Your task to perform on an android device: change the clock display to analog Image 0: 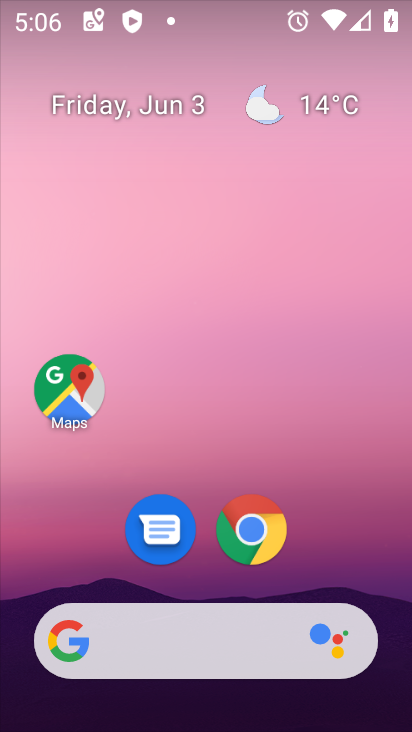
Step 0: drag from (213, 572) to (226, 106)
Your task to perform on an android device: change the clock display to analog Image 1: 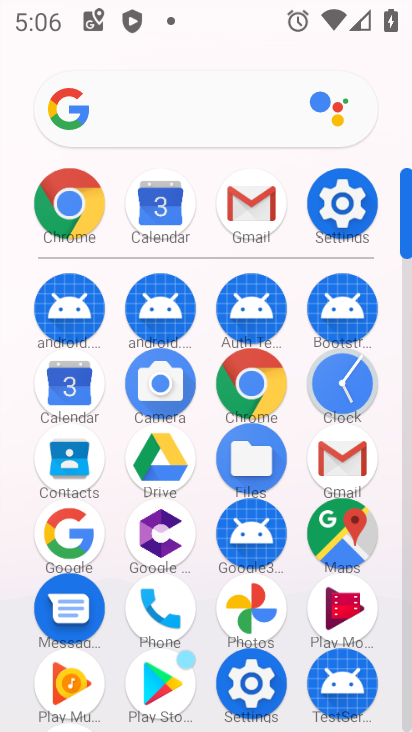
Step 1: click (339, 374)
Your task to perform on an android device: change the clock display to analog Image 2: 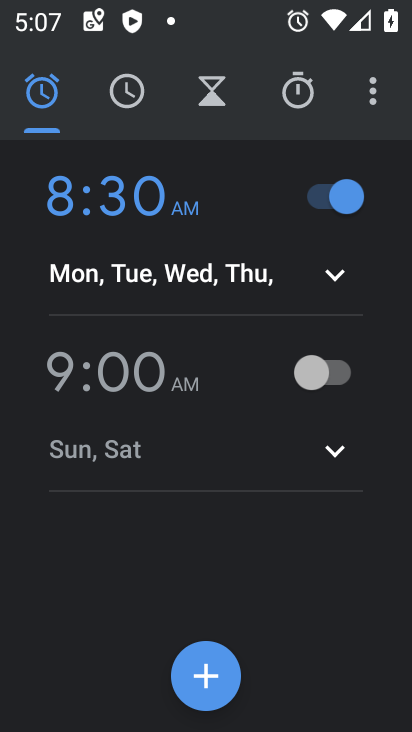
Step 2: click (368, 95)
Your task to perform on an android device: change the clock display to analog Image 3: 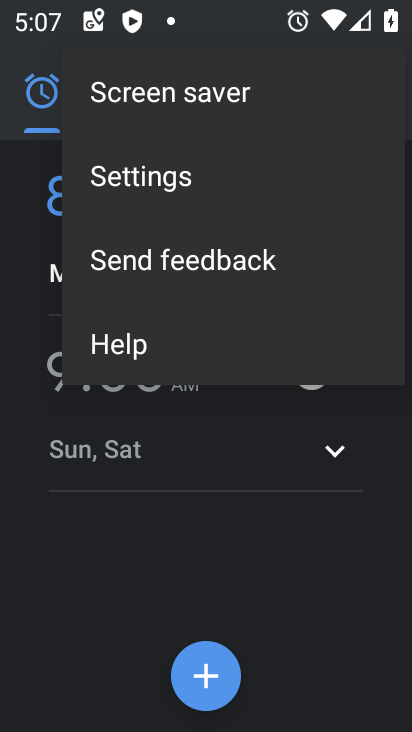
Step 3: click (204, 168)
Your task to perform on an android device: change the clock display to analog Image 4: 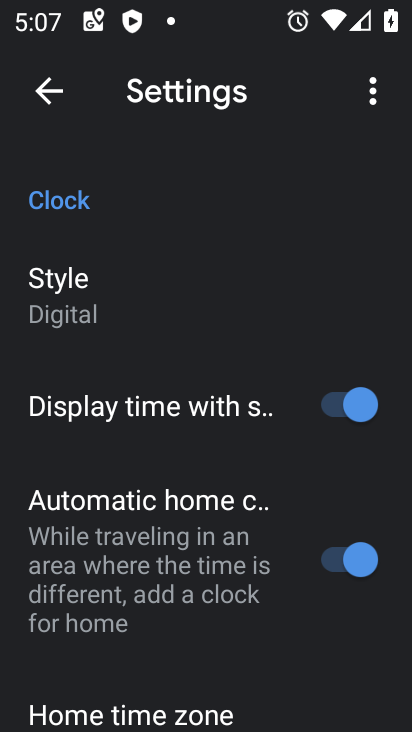
Step 4: click (141, 295)
Your task to perform on an android device: change the clock display to analog Image 5: 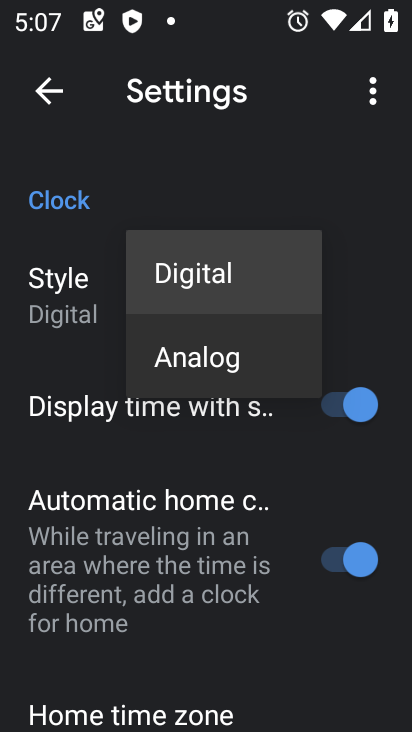
Step 5: click (231, 357)
Your task to perform on an android device: change the clock display to analog Image 6: 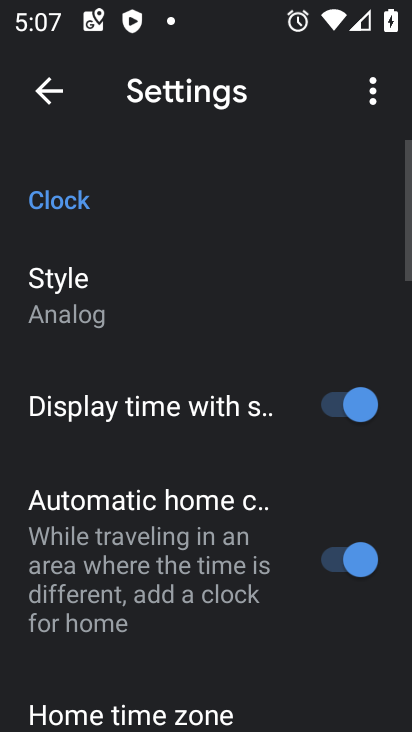
Step 6: task complete